Your task to perform on an android device: open a new tab in the chrome app Image 0: 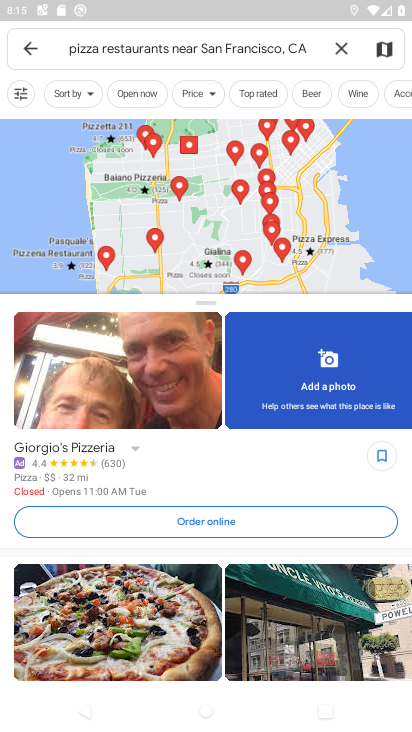
Step 0: press home button
Your task to perform on an android device: open a new tab in the chrome app Image 1: 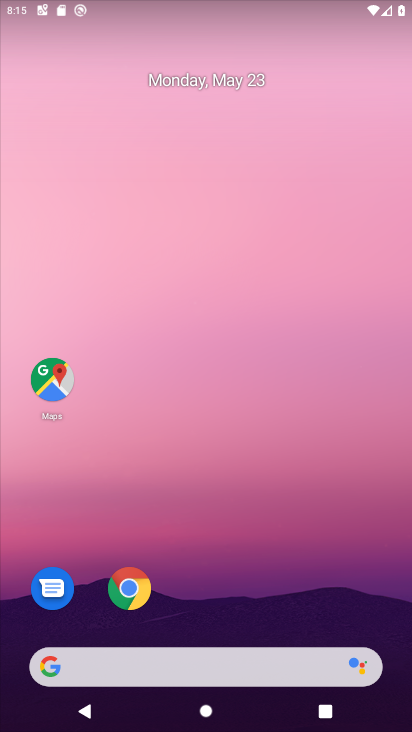
Step 1: click (131, 587)
Your task to perform on an android device: open a new tab in the chrome app Image 2: 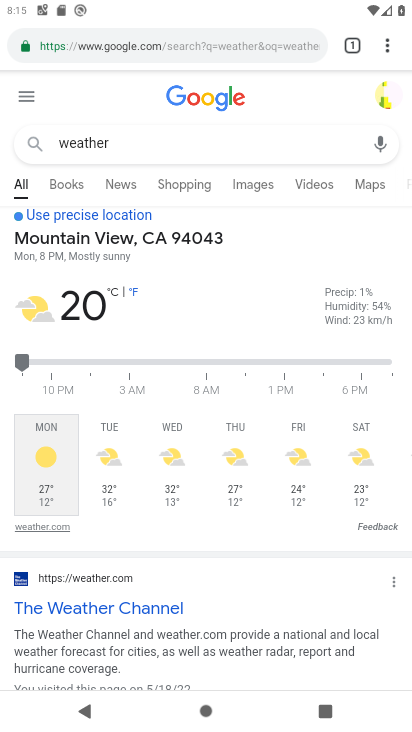
Step 2: click (387, 48)
Your task to perform on an android device: open a new tab in the chrome app Image 3: 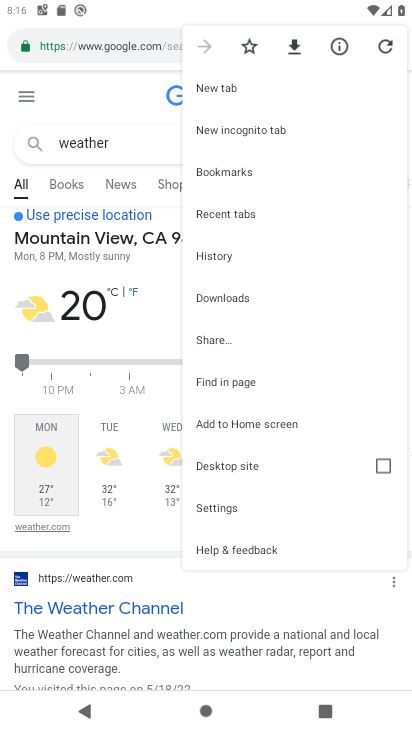
Step 3: click (211, 85)
Your task to perform on an android device: open a new tab in the chrome app Image 4: 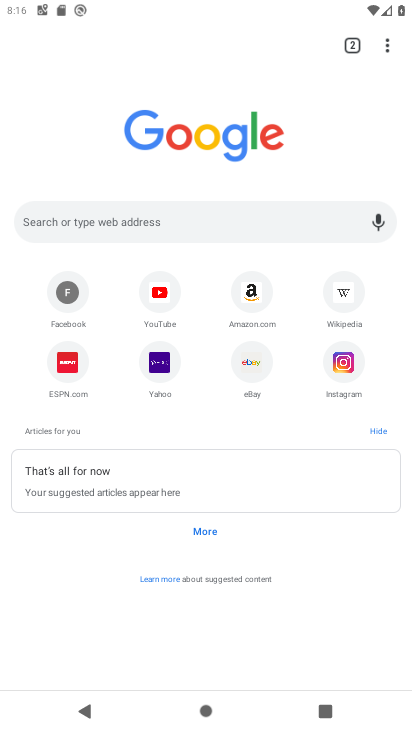
Step 4: task complete